Your task to perform on an android device: choose inbox layout in the gmail app Image 0: 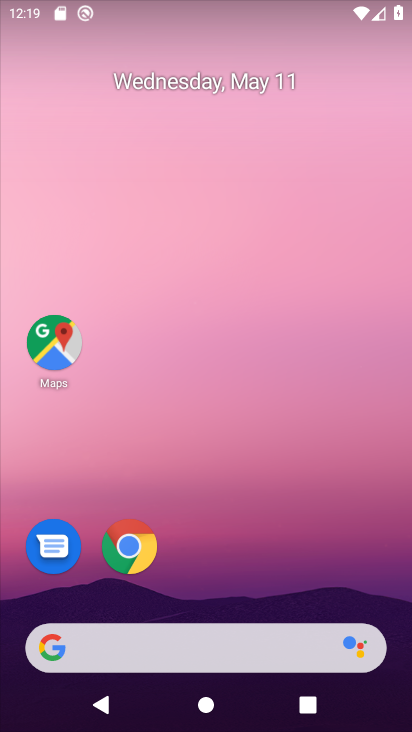
Step 0: drag from (234, 583) to (241, 271)
Your task to perform on an android device: choose inbox layout in the gmail app Image 1: 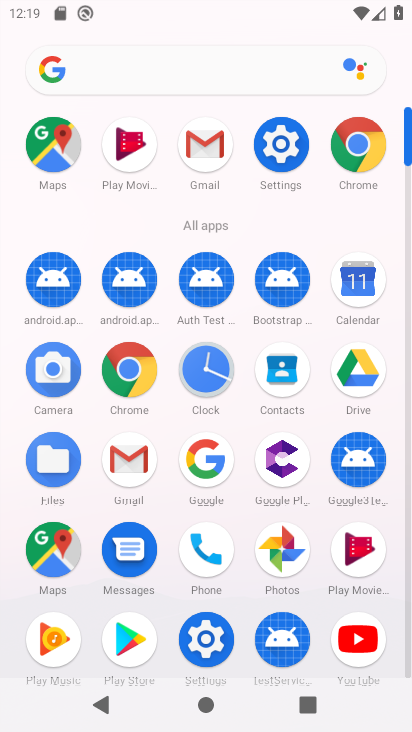
Step 1: click (214, 135)
Your task to perform on an android device: choose inbox layout in the gmail app Image 2: 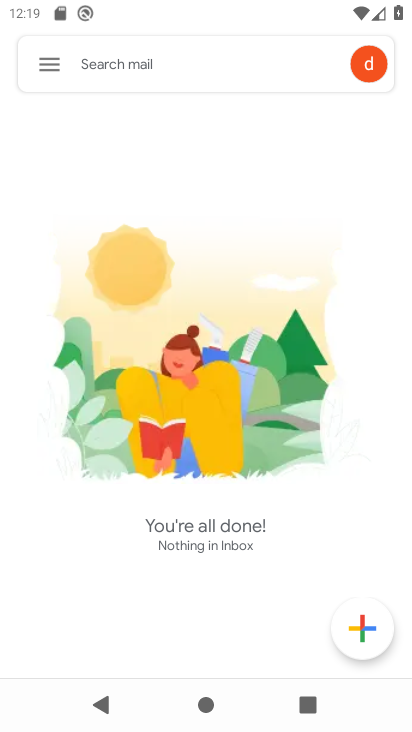
Step 2: click (52, 60)
Your task to perform on an android device: choose inbox layout in the gmail app Image 3: 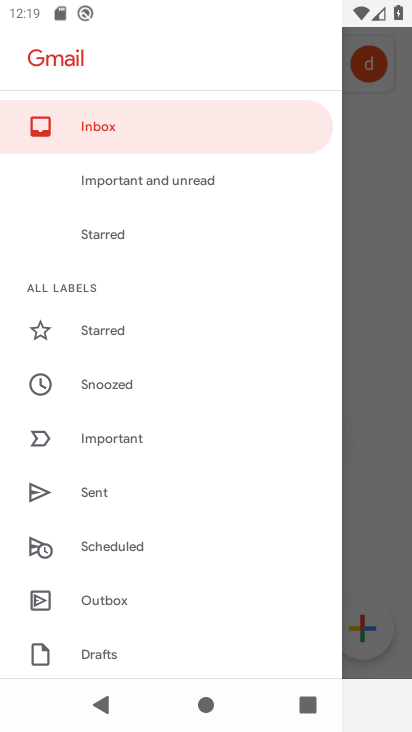
Step 3: drag from (155, 644) to (203, 305)
Your task to perform on an android device: choose inbox layout in the gmail app Image 4: 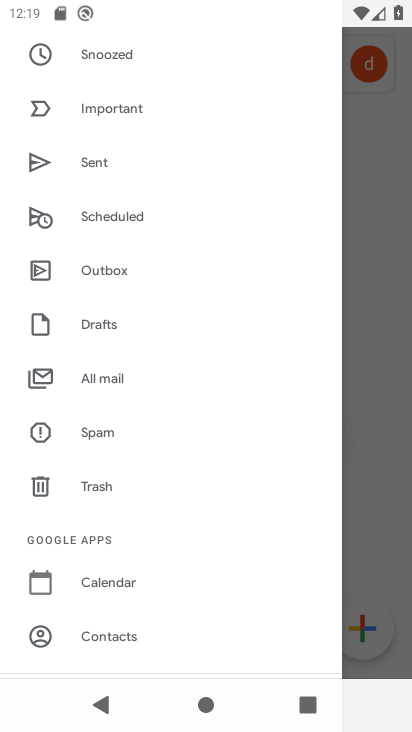
Step 4: drag from (130, 607) to (208, 351)
Your task to perform on an android device: choose inbox layout in the gmail app Image 5: 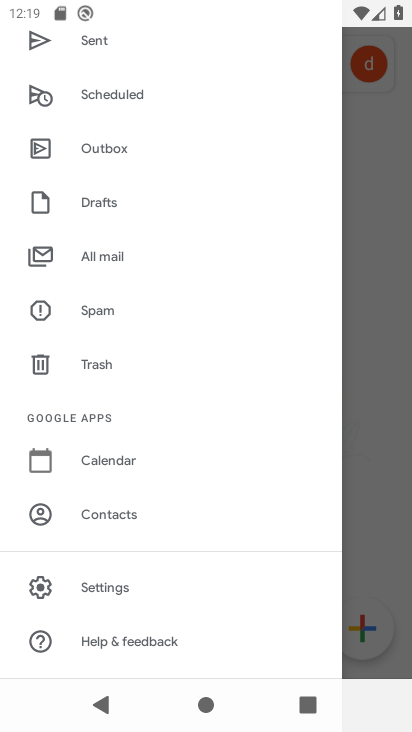
Step 5: click (87, 580)
Your task to perform on an android device: choose inbox layout in the gmail app Image 6: 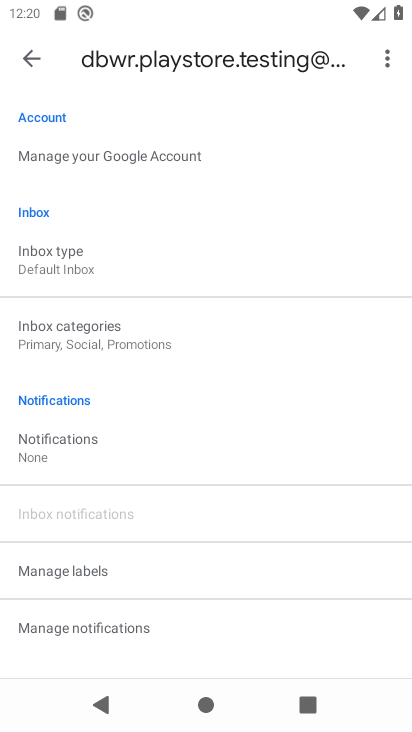
Step 6: click (63, 259)
Your task to perform on an android device: choose inbox layout in the gmail app Image 7: 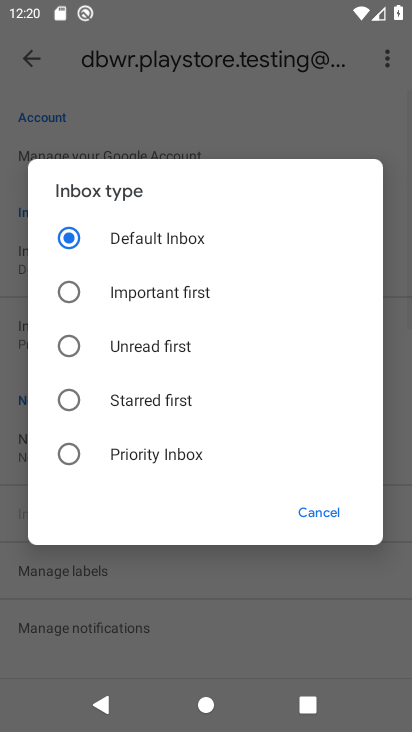
Step 7: click (174, 336)
Your task to perform on an android device: choose inbox layout in the gmail app Image 8: 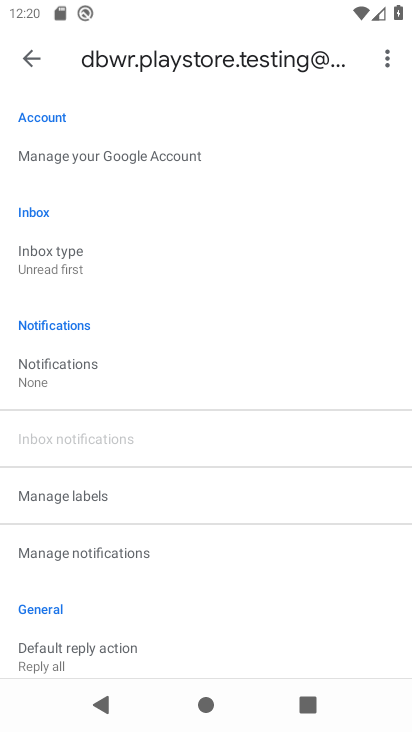
Step 8: task complete